Your task to perform on an android device: Go to Google Image 0: 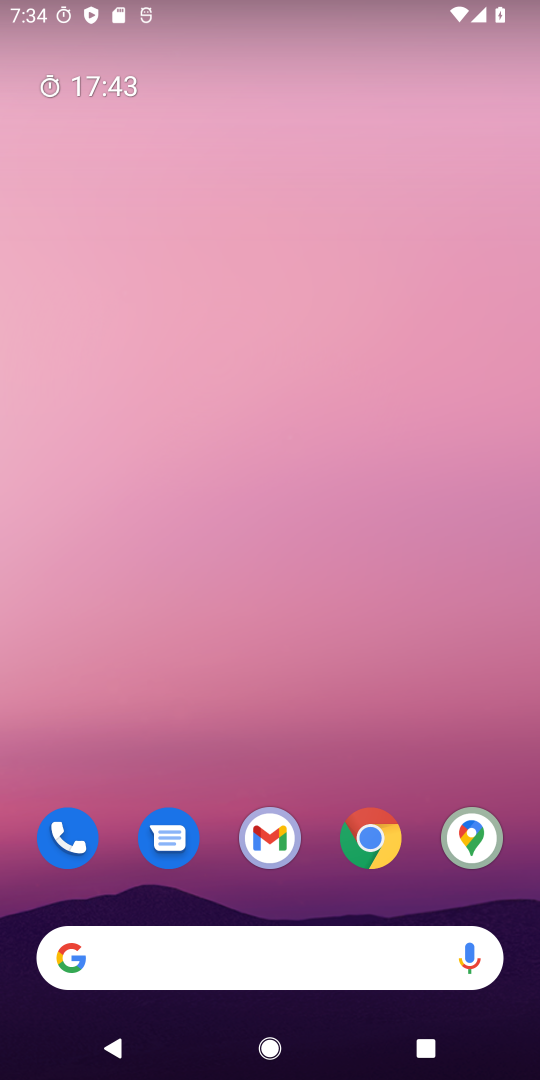
Step 0: drag from (317, 887) to (429, 129)
Your task to perform on an android device: Go to Google Image 1: 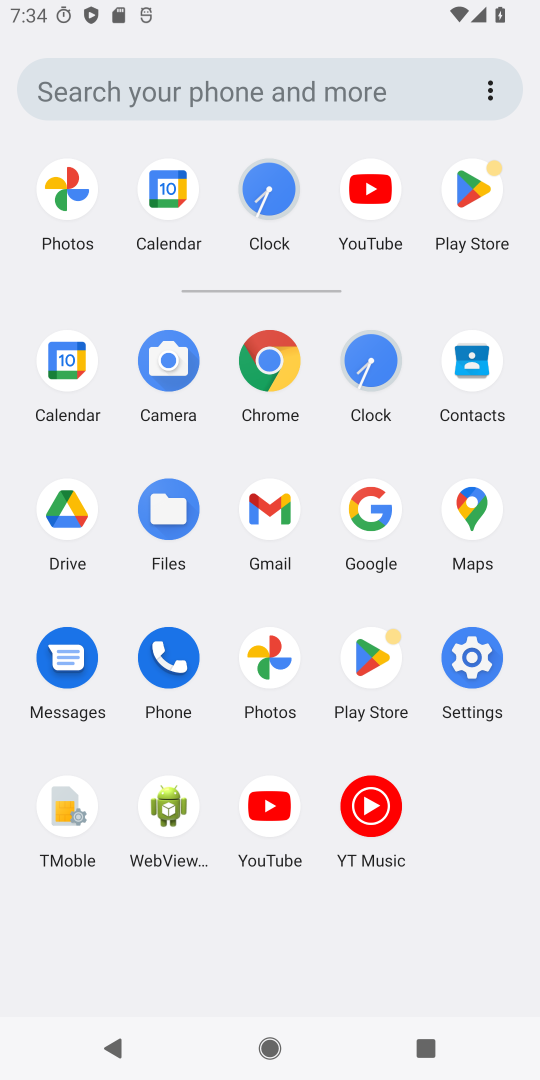
Step 1: click (382, 516)
Your task to perform on an android device: Go to Google Image 2: 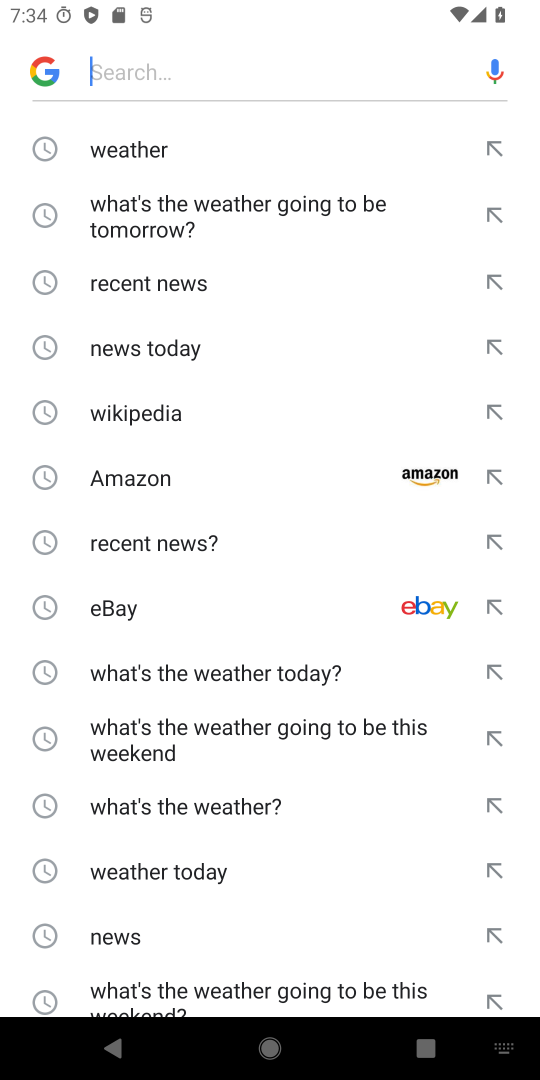
Step 2: task complete